Your task to perform on an android device: toggle translation in the chrome app Image 0: 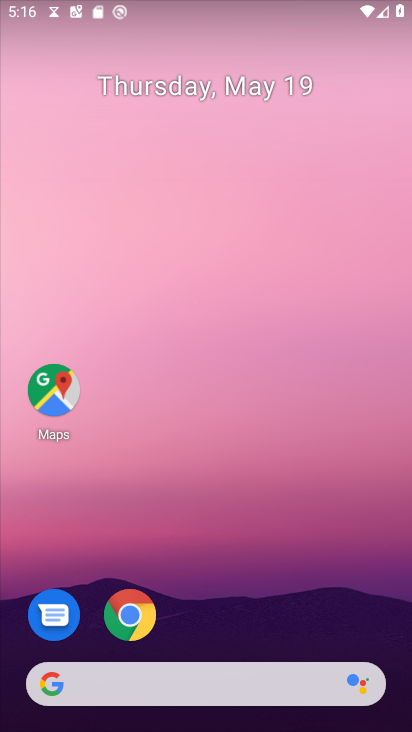
Step 0: drag from (244, 691) to (208, 1)
Your task to perform on an android device: toggle translation in the chrome app Image 1: 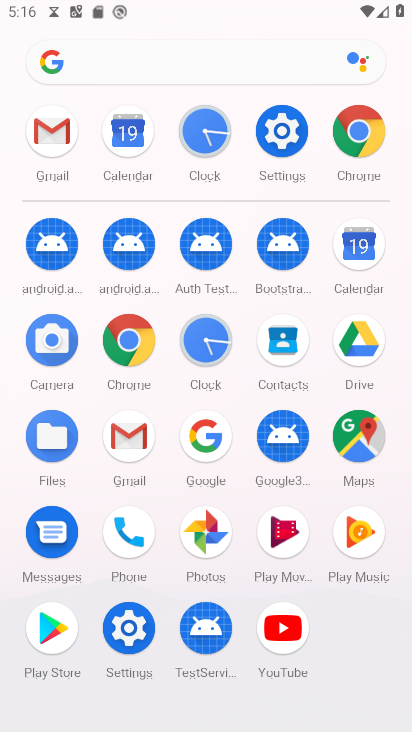
Step 1: click (141, 350)
Your task to perform on an android device: toggle translation in the chrome app Image 2: 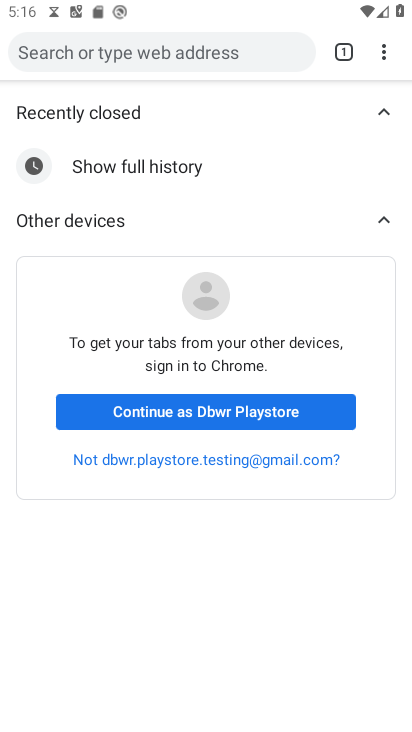
Step 2: click (385, 43)
Your task to perform on an android device: toggle translation in the chrome app Image 3: 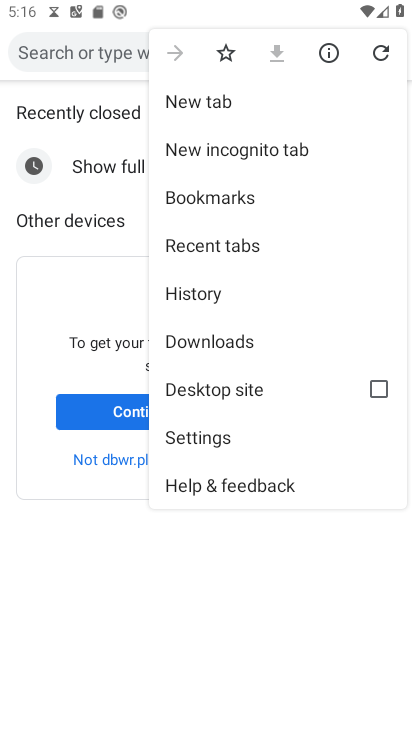
Step 3: click (224, 431)
Your task to perform on an android device: toggle translation in the chrome app Image 4: 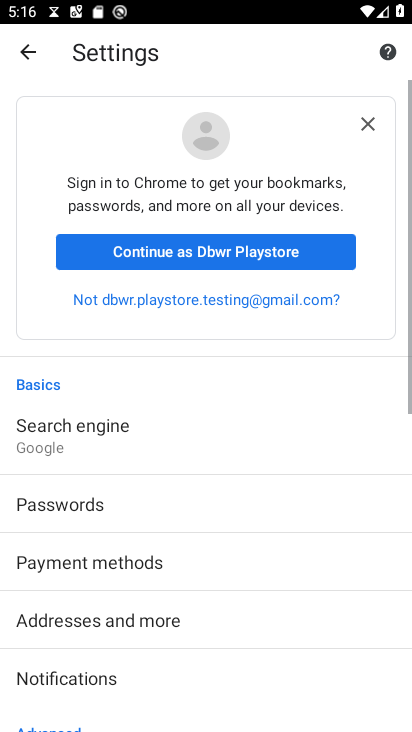
Step 4: drag from (145, 621) to (166, 18)
Your task to perform on an android device: toggle translation in the chrome app Image 5: 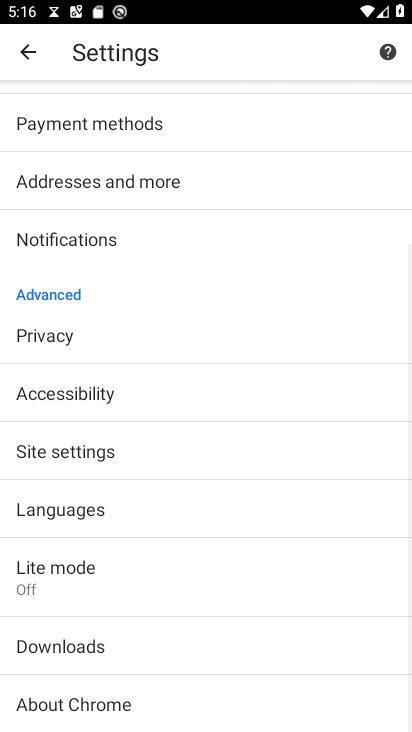
Step 5: drag from (125, 608) to (124, 445)
Your task to perform on an android device: toggle translation in the chrome app Image 6: 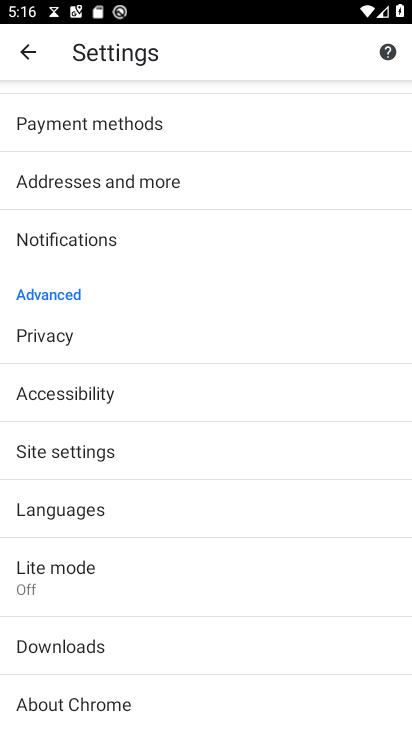
Step 6: click (110, 523)
Your task to perform on an android device: toggle translation in the chrome app Image 7: 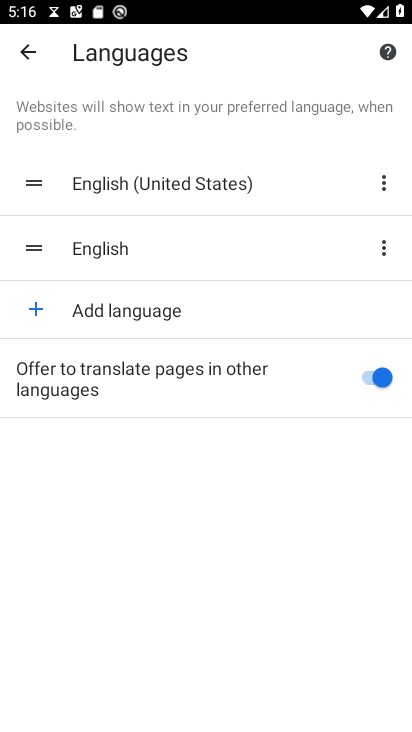
Step 7: click (378, 381)
Your task to perform on an android device: toggle translation in the chrome app Image 8: 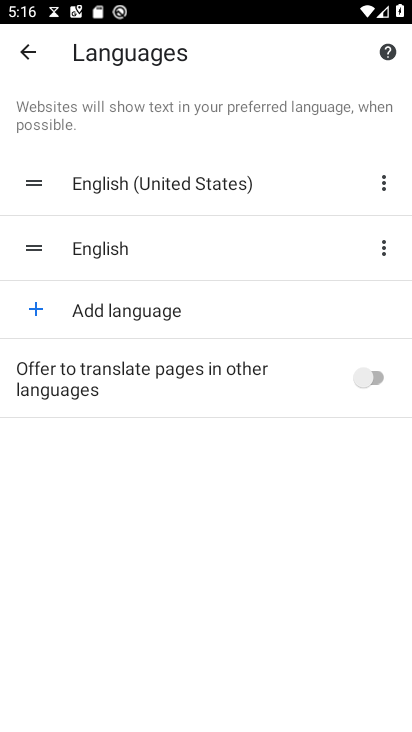
Step 8: task complete